Your task to perform on an android device: visit the assistant section in the google photos Image 0: 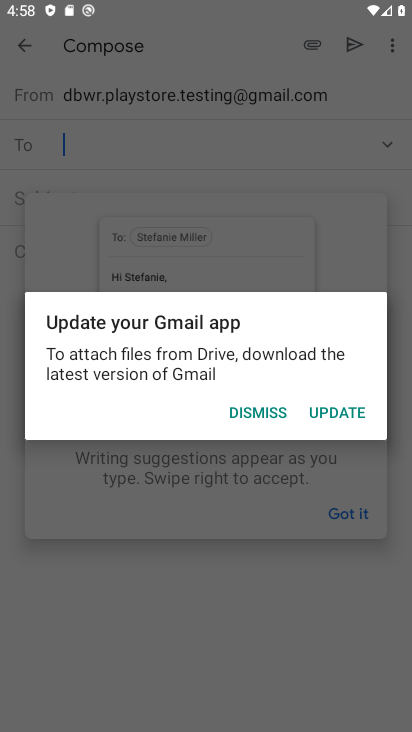
Step 0: press home button
Your task to perform on an android device: visit the assistant section in the google photos Image 1: 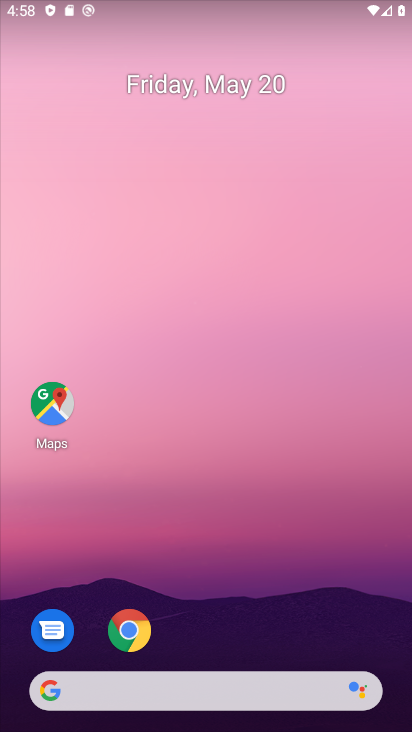
Step 1: drag from (257, 574) to (272, 97)
Your task to perform on an android device: visit the assistant section in the google photos Image 2: 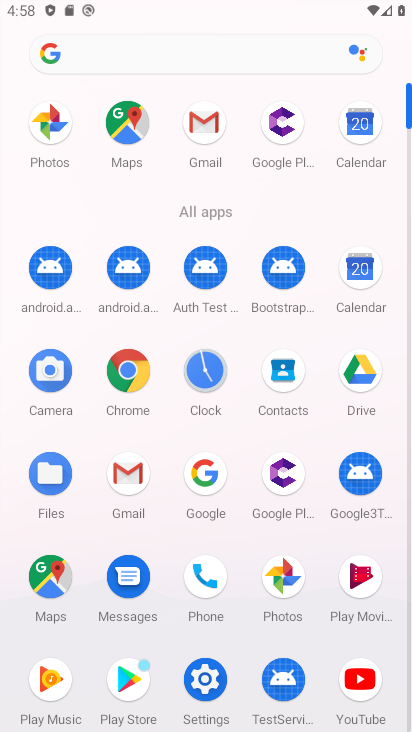
Step 2: click (51, 113)
Your task to perform on an android device: visit the assistant section in the google photos Image 3: 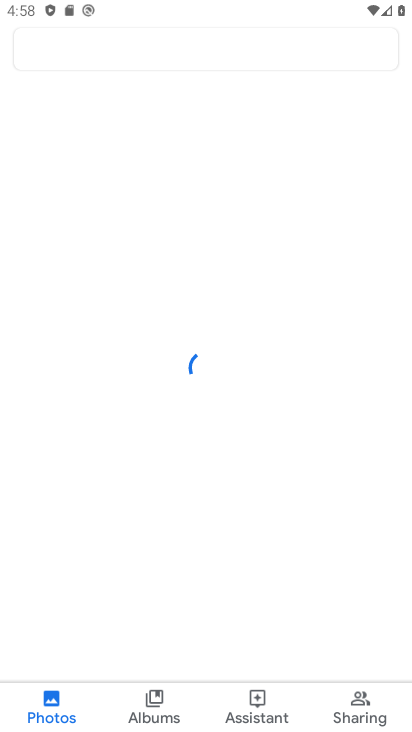
Step 3: click (251, 702)
Your task to perform on an android device: visit the assistant section in the google photos Image 4: 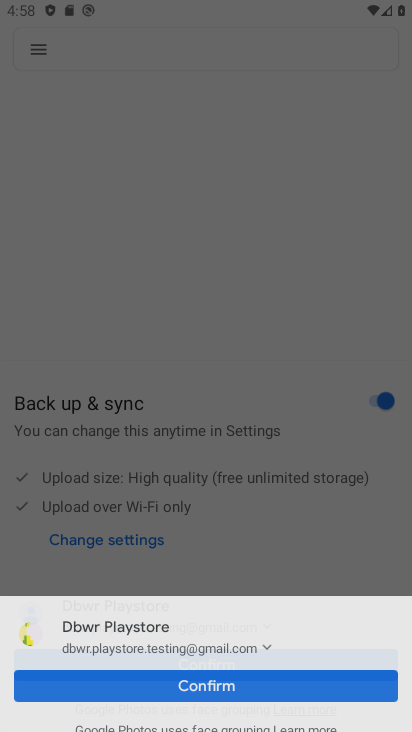
Step 4: click (262, 663)
Your task to perform on an android device: visit the assistant section in the google photos Image 5: 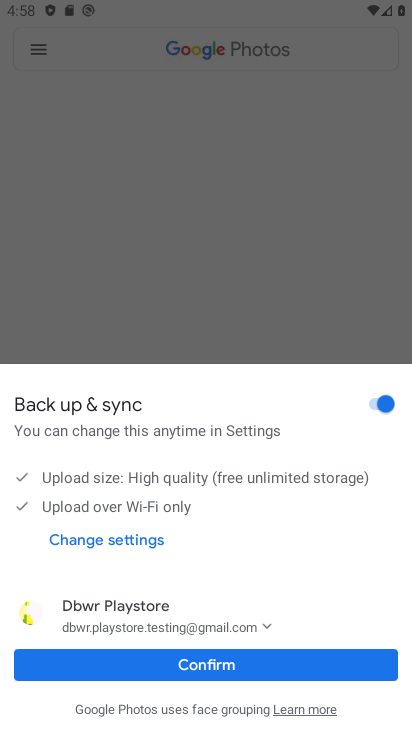
Step 5: click (262, 665)
Your task to perform on an android device: visit the assistant section in the google photos Image 6: 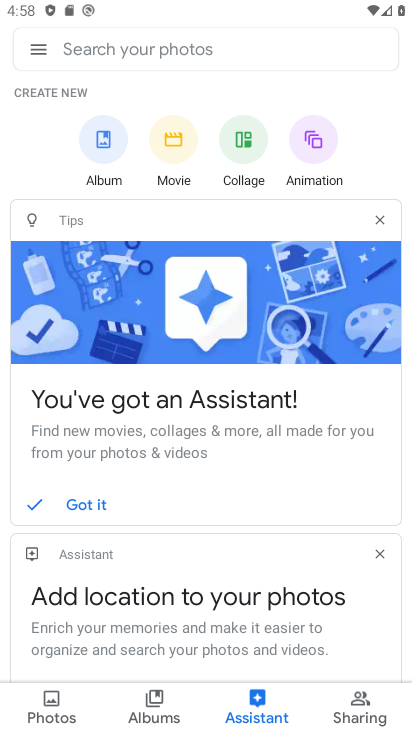
Step 6: click (266, 698)
Your task to perform on an android device: visit the assistant section in the google photos Image 7: 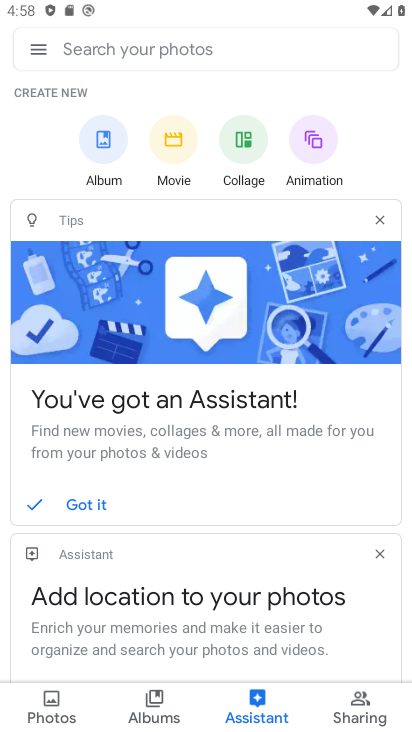
Step 7: task complete